Your task to perform on an android device: Show me popular videos on Youtube Image 0: 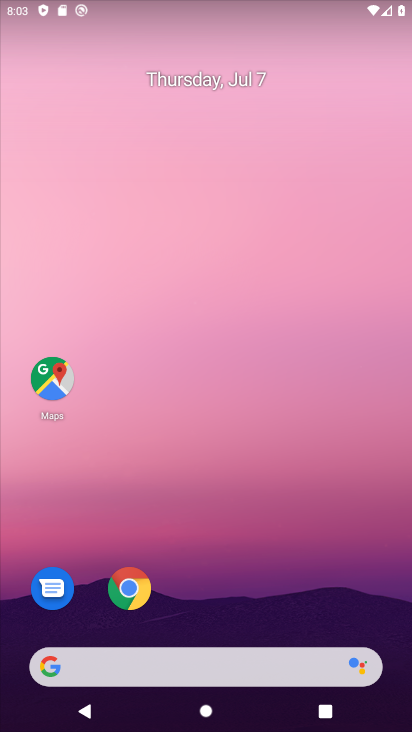
Step 0: drag from (135, 663) to (265, 151)
Your task to perform on an android device: Show me popular videos on Youtube Image 1: 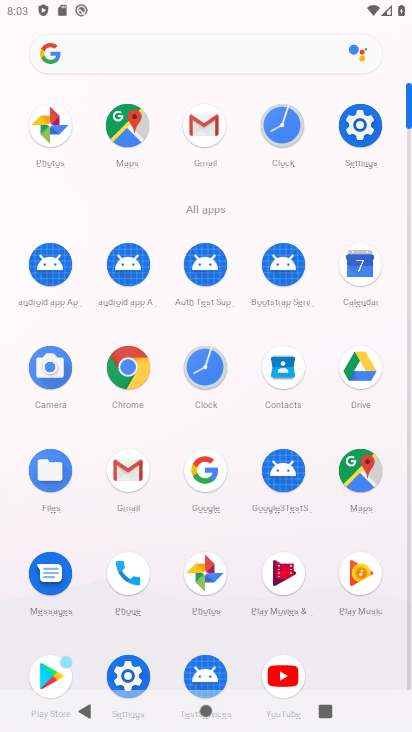
Step 1: click (291, 675)
Your task to perform on an android device: Show me popular videos on Youtube Image 2: 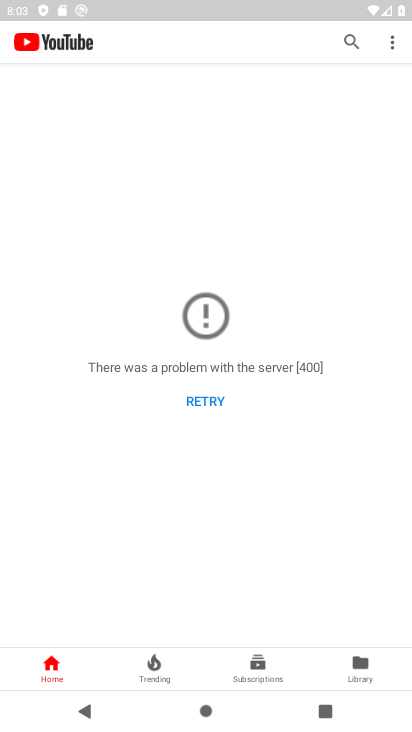
Step 2: click (207, 394)
Your task to perform on an android device: Show me popular videos on Youtube Image 3: 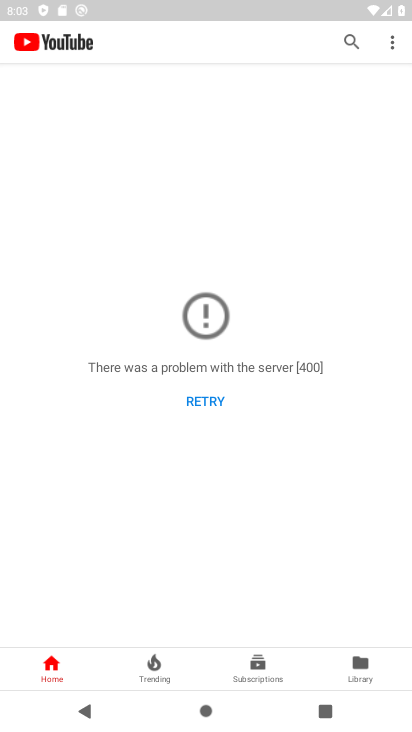
Step 3: click (206, 401)
Your task to perform on an android device: Show me popular videos on Youtube Image 4: 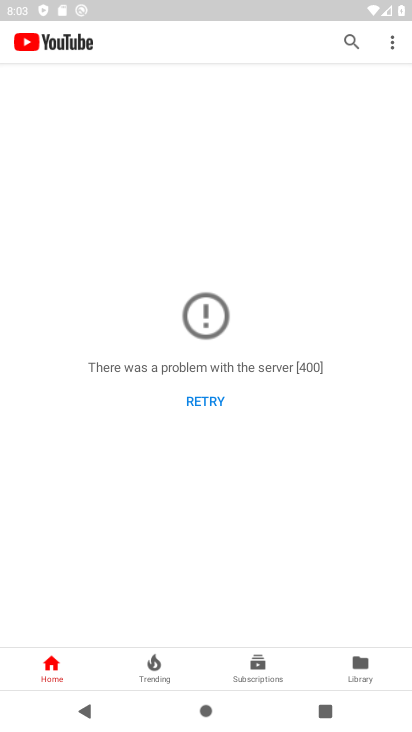
Step 4: click (206, 402)
Your task to perform on an android device: Show me popular videos on Youtube Image 5: 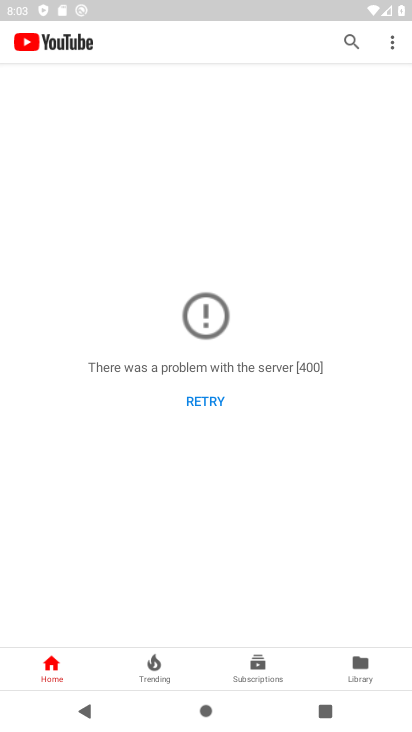
Step 5: task complete